Your task to perform on an android device: Turn off the flashlight Image 0: 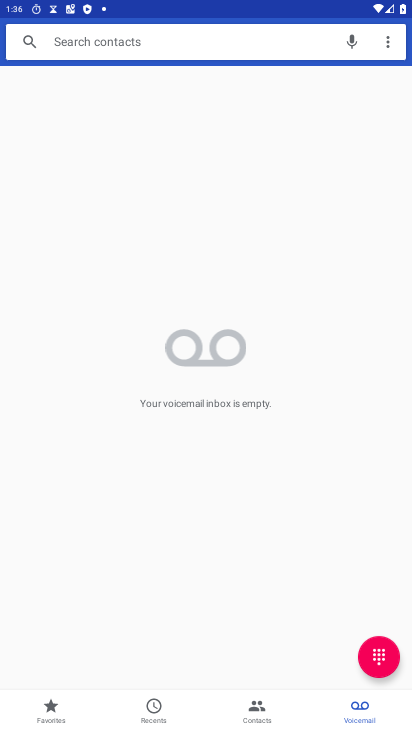
Step 0: press home button
Your task to perform on an android device: Turn off the flashlight Image 1: 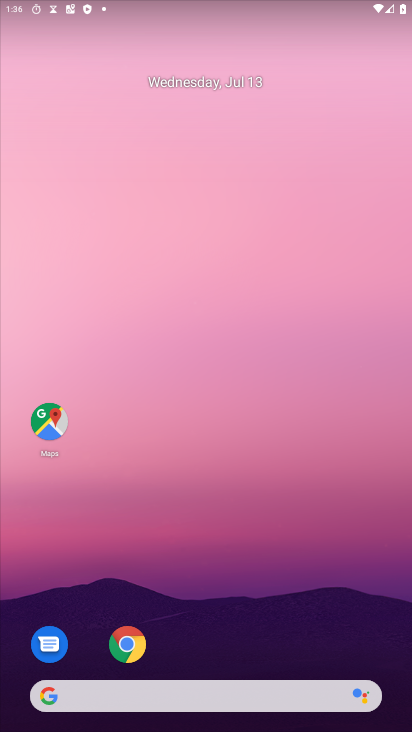
Step 1: task complete